Your task to perform on an android device: refresh tabs in the chrome app Image 0: 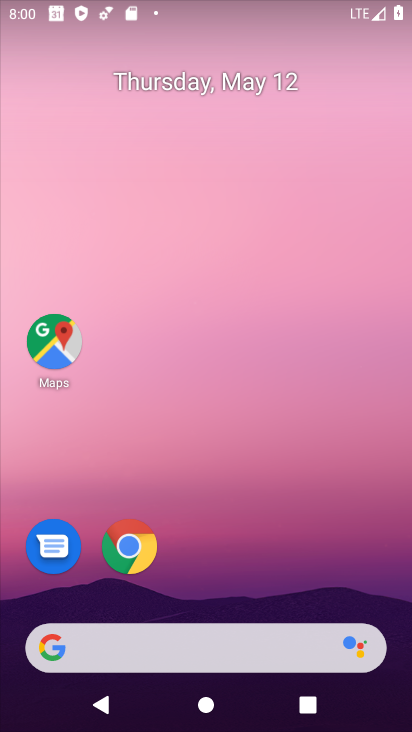
Step 0: click (135, 536)
Your task to perform on an android device: refresh tabs in the chrome app Image 1: 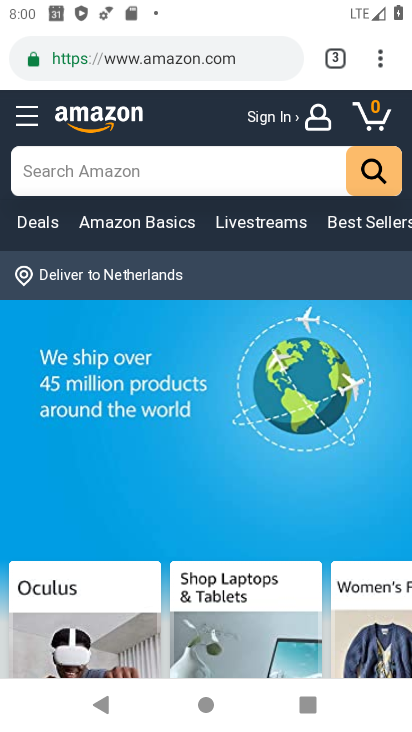
Step 1: click (381, 51)
Your task to perform on an android device: refresh tabs in the chrome app Image 2: 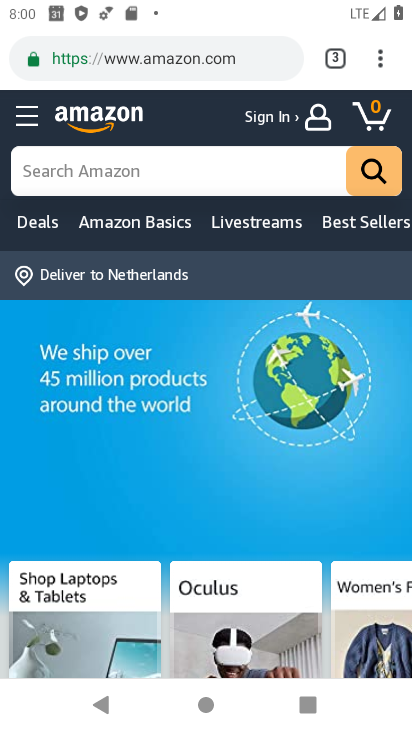
Step 2: task complete